Your task to perform on an android device: empty trash in the gmail app Image 0: 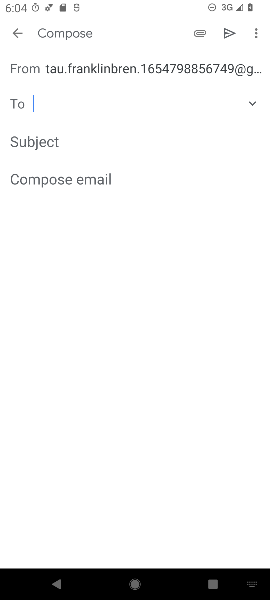
Step 0: press home button
Your task to perform on an android device: empty trash in the gmail app Image 1: 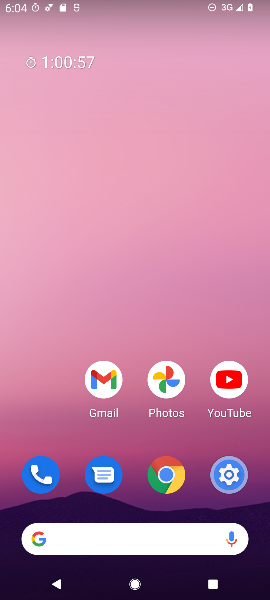
Step 1: drag from (50, 407) to (46, 199)
Your task to perform on an android device: empty trash in the gmail app Image 2: 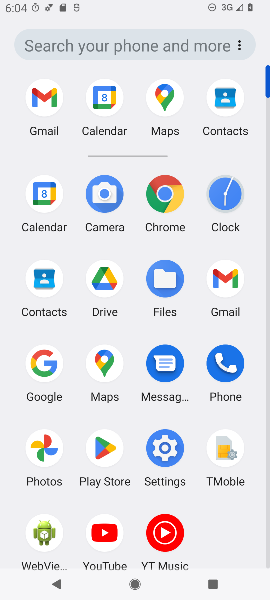
Step 2: click (220, 276)
Your task to perform on an android device: empty trash in the gmail app Image 3: 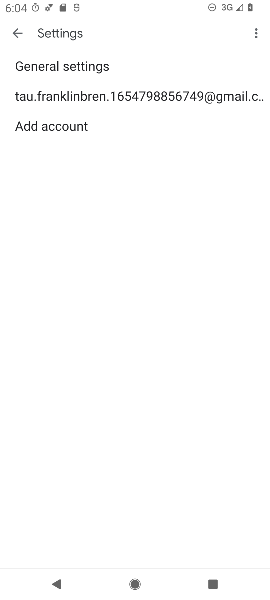
Step 3: press back button
Your task to perform on an android device: empty trash in the gmail app Image 4: 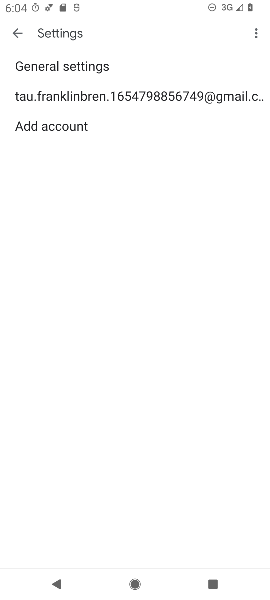
Step 4: press back button
Your task to perform on an android device: empty trash in the gmail app Image 5: 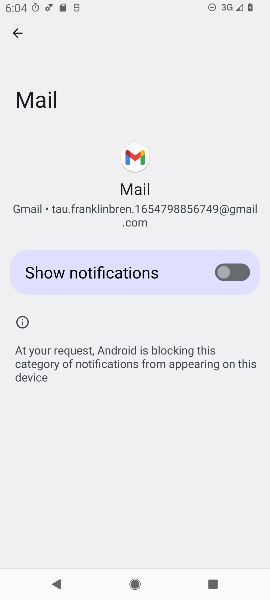
Step 5: press back button
Your task to perform on an android device: empty trash in the gmail app Image 6: 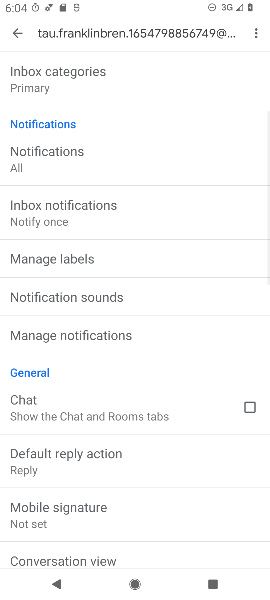
Step 6: press back button
Your task to perform on an android device: empty trash in the gmail app Image 7: 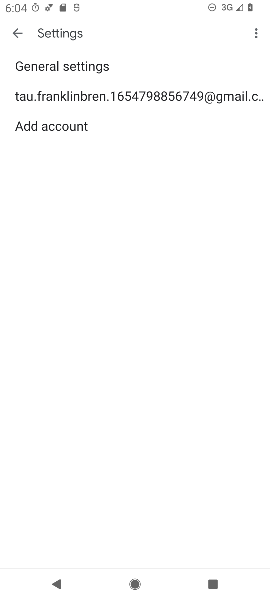
Step 7: press back button
Your task to perform on an android device: empty trash in the gmail app Image 8: 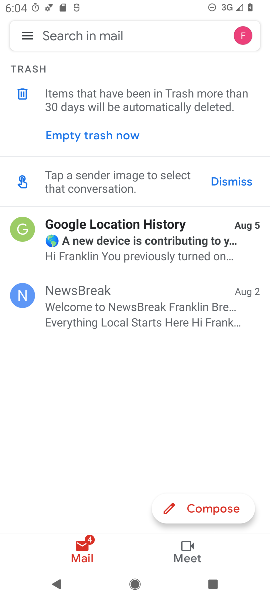
Step 8: click (25, 32)
Your task to perform on an android device: empty trash in the gmail app Image 9: 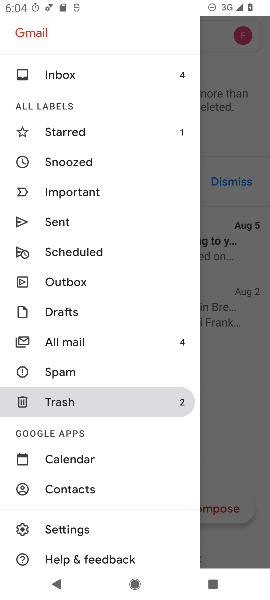
Step 9: click (123, 399)
Your task to perform on an android device: empty trash in the gmail app Image 10: 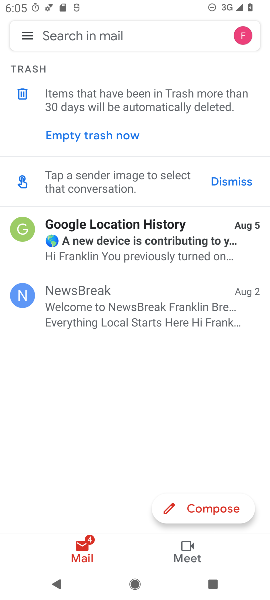
Step 10: click (123, 139)
Your task to perform on an android device: empty trash in the gmail app Image 11: 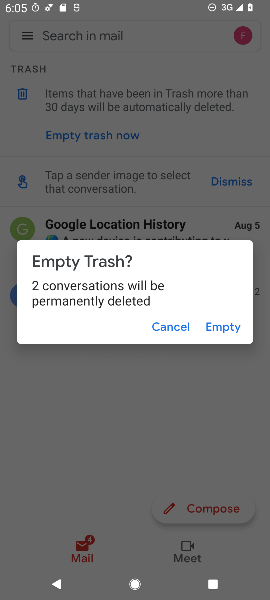
Step 11: click (224, 324)
Your task to perform on an android device: empty trash in the gmail app Image 12: 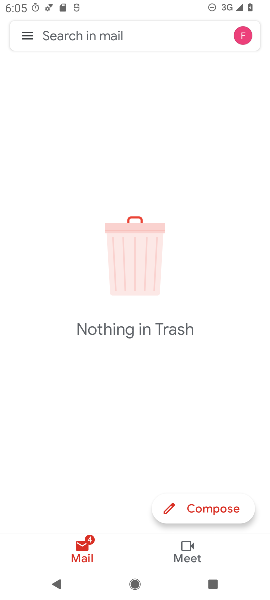
Step 12: task complete